Your task to perform on an android device: add a label to a message in the gmail app Image 0: 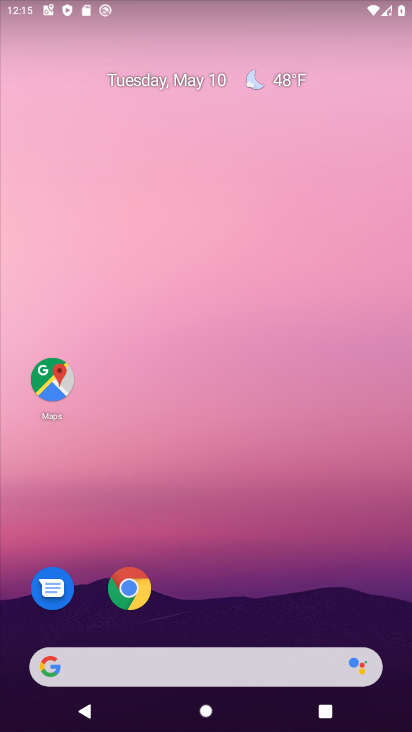
Step 0: drag from (300, 607) to (235, 335)
Your task to perform on an android device: add a label to a message in the gmail app Image 1: 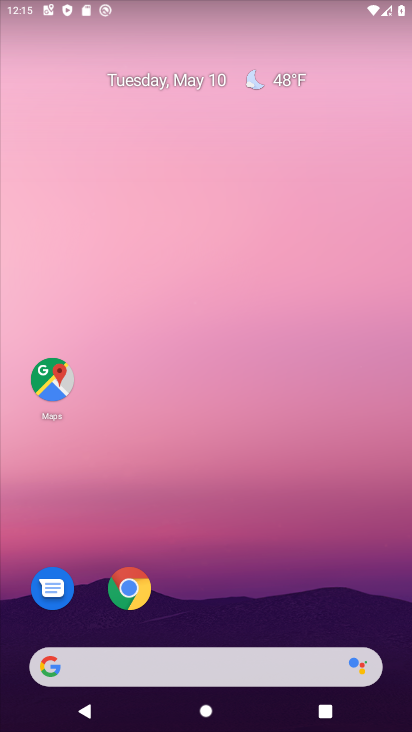
Step 1: drag from (234, 625) to (200, 328)
Your task to perform on an android device: add a label to a message in the gmail app Image 2: 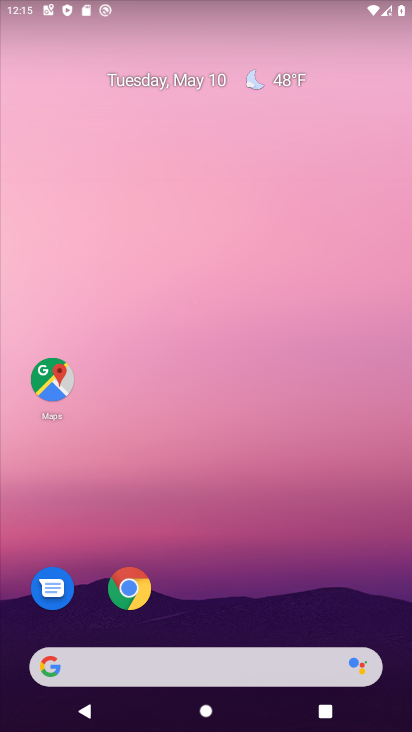
Step 2: drag from (203, 488) to (156, 267)
Your task to perform on an android device: add a label to a message in the gmail app Image 3: 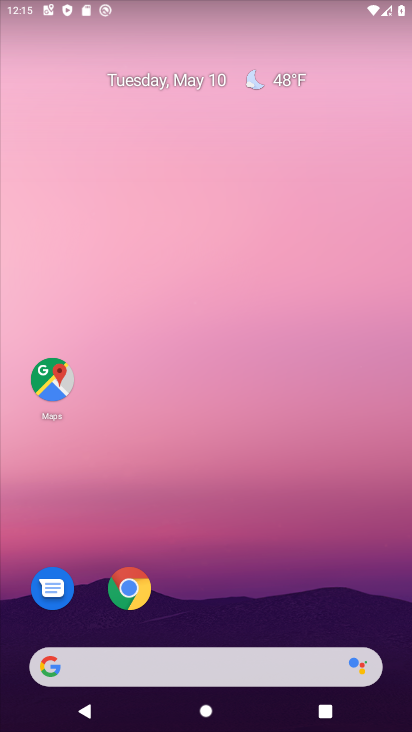
Step 3: drag from (222, 483) to (188, 232)
Your task to perform on an android device: add a label to a message in the gmail app Image 4: 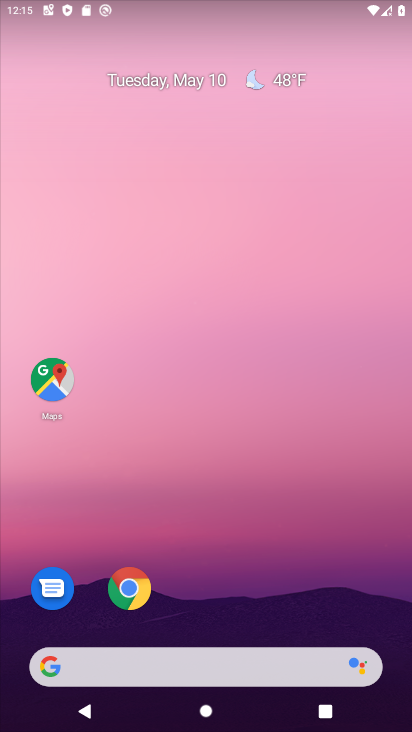
Step 4: drag from (254, 515) to (243, 267)
Your task to perform on an android device: add a label to a message in the gmail app Image 5: 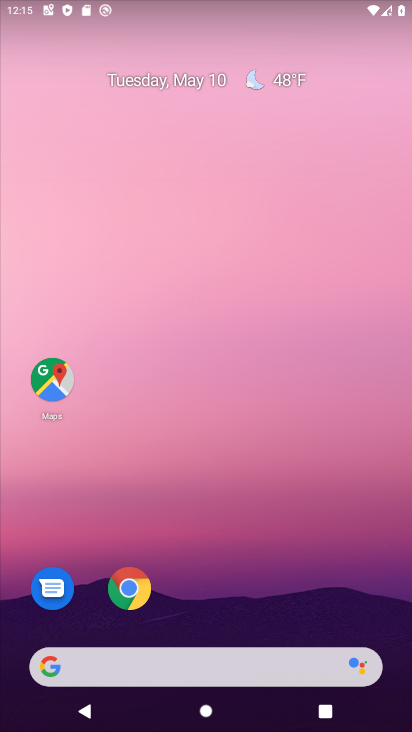
Step 5: click (246, 555)
Your task to perform on an android device: add a label to a message in the gmail app Image 6: 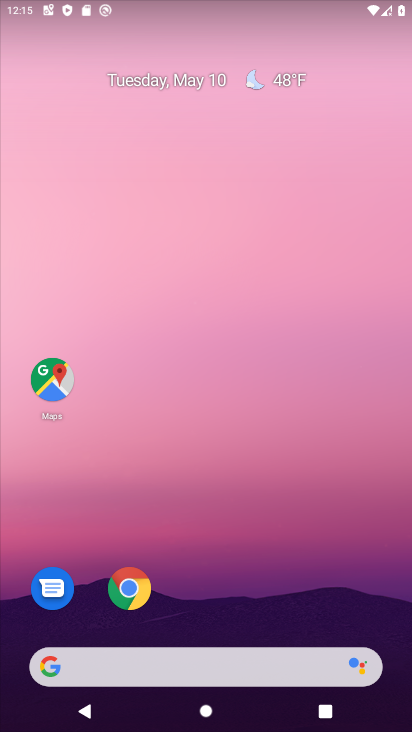
Step 6: drag from (244, 592) to (198, 331)
Your task to perform on an android device: add a label to a message in the gmail app Image 7: 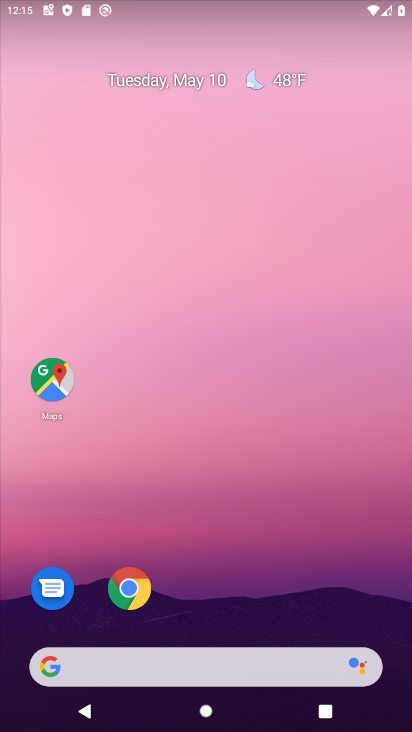
Step 7: drag from (245, 608) to (198, 345)
Your task to perform on an android device: add a label to a message in the gmail app Image 8: 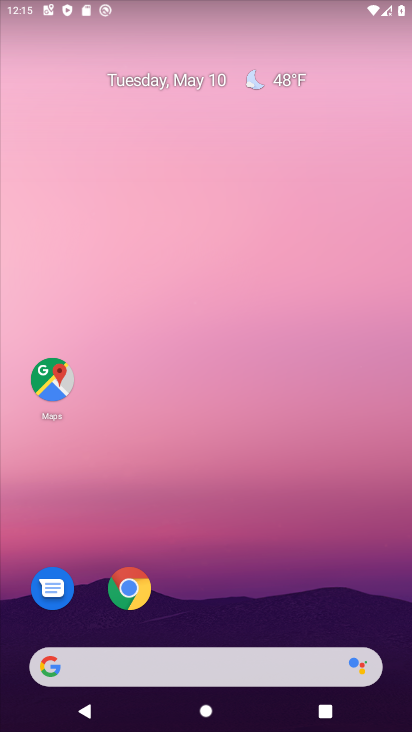
Step 8: drag from (231, 637) to (189, 375)
Your task to perform on an android device: add a label to a message in the gmail app Image 9: 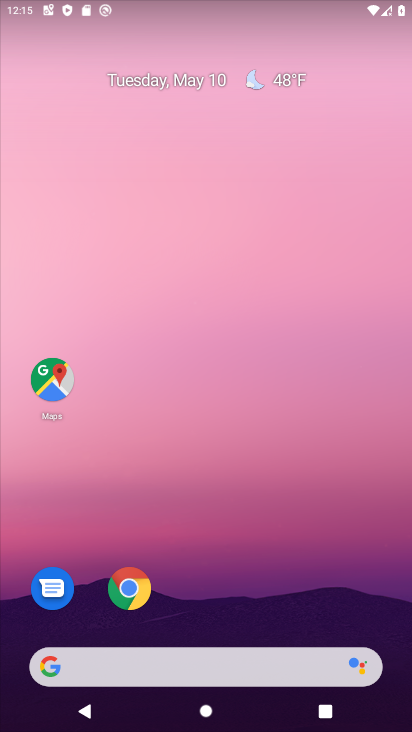
Step 9: drag from (223, 551) to (185, 305)
Your task to perform on an android device: add a label to a message in the gmail app Image 10: 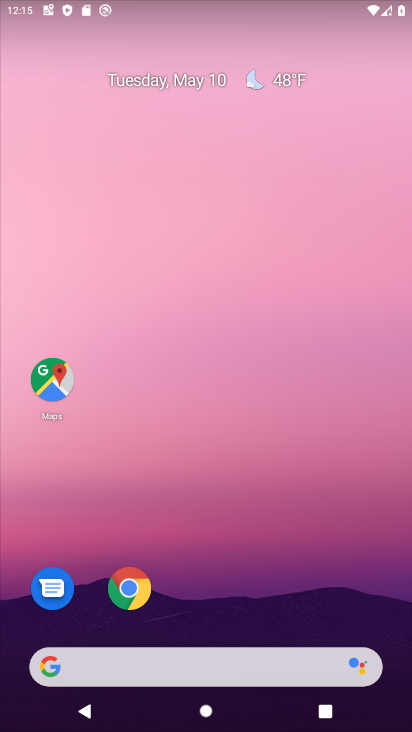
Step 10: drag from (293, 557) to (293, 192)
Your task to perform on an android device: add a label to a message in the gmail app Image 11: 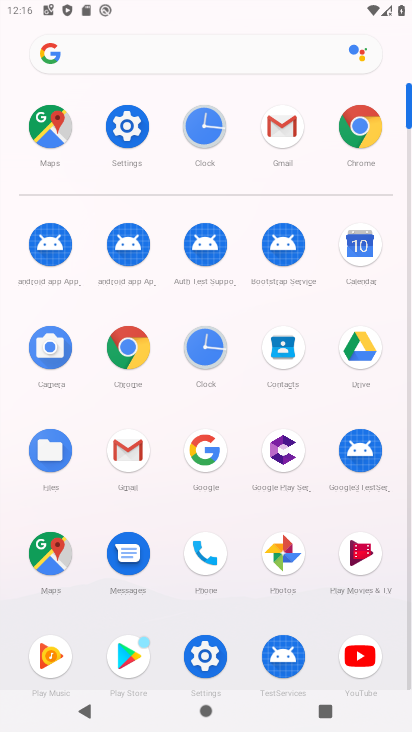
Step 11: click (278, 143)
Your task to perform on an android device: add a label to a message in the gmail app Image 12: 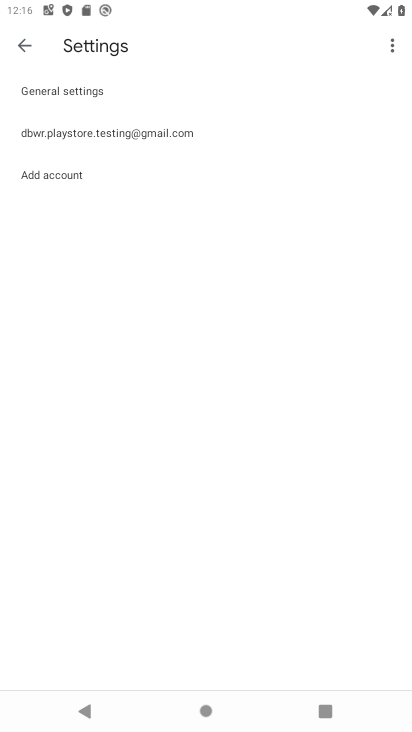
Step 12: click (15, 47)
Your task to perform on an android device: add a label to a message in the gmail app Image 13: 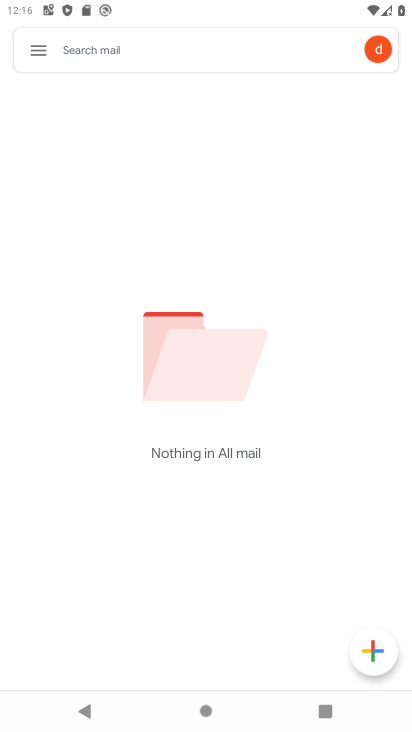
Step 13: click (43, 41)
Your task to perform on an android device: add a label to a message in the gmail app Image 14: 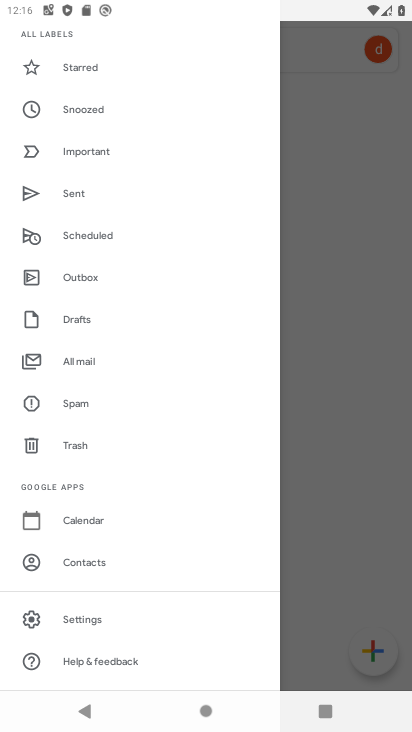
Step 14: click (85, 343)
Your task to perform on an android device: add a label to a message in the gmail app Image 15: 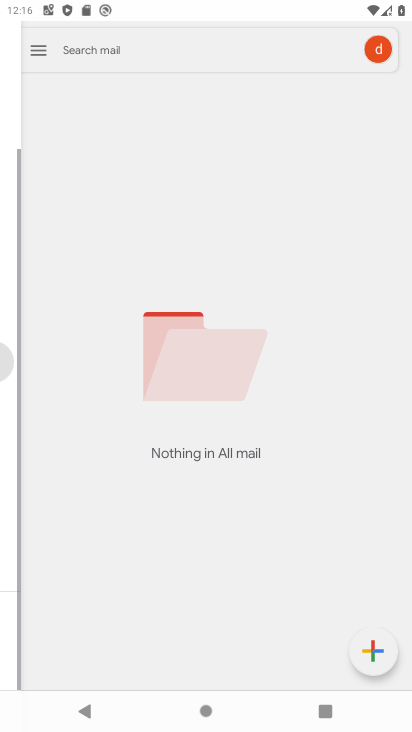
Step 15: click (81, 377)
Your task to perform on an android device: add a label to a message in the gmail app Image 16: 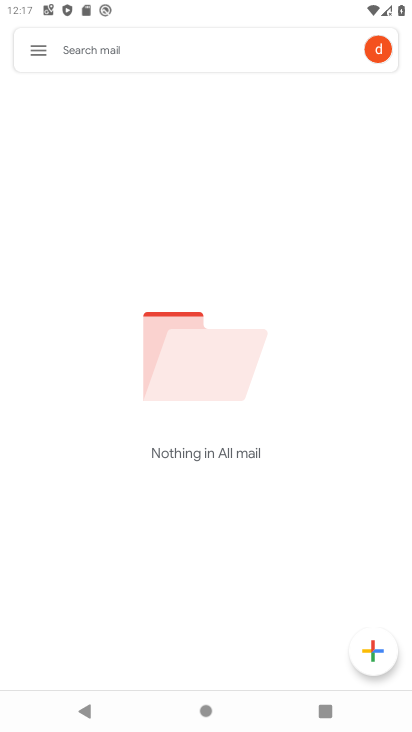
Step 16: task complete